Your task to perform on an android device: install app "Google Chat" Image 0: 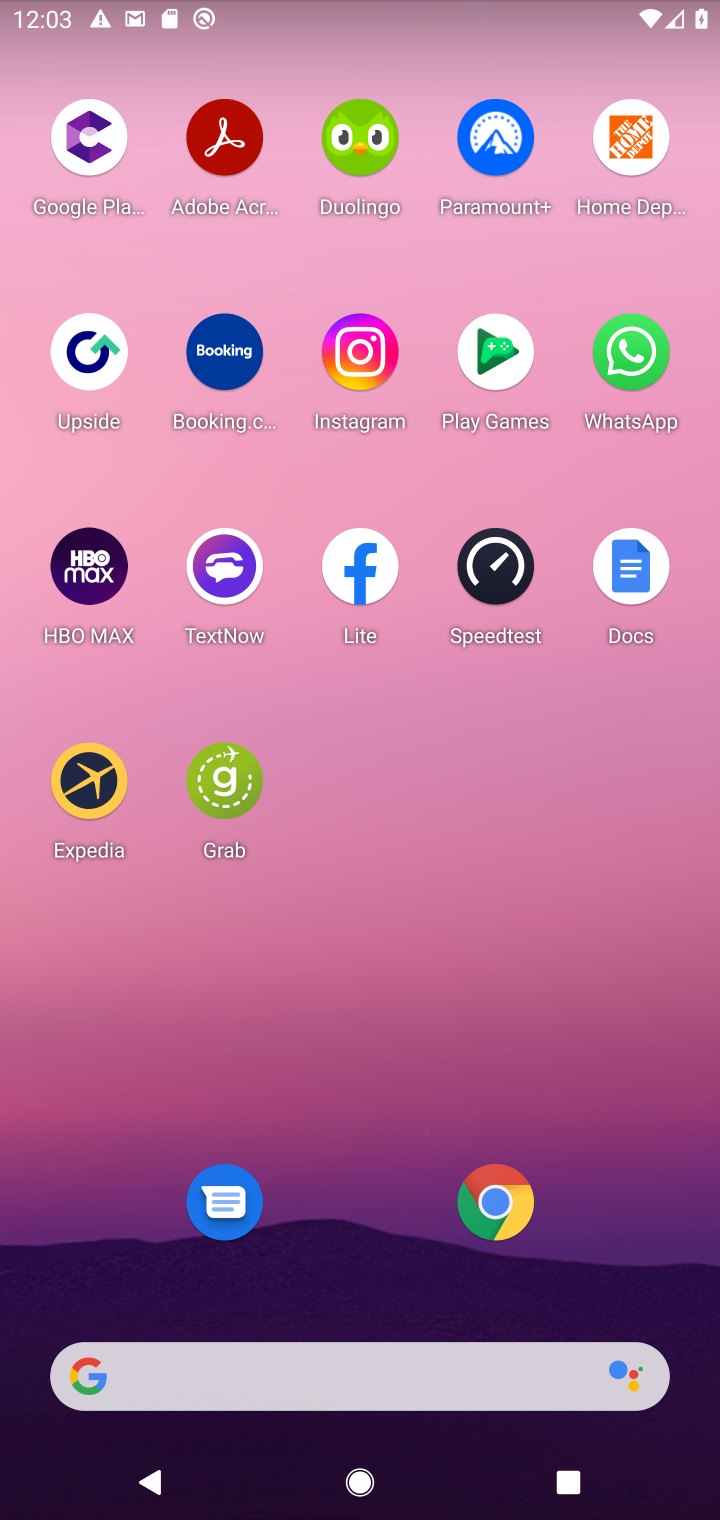
Step 0: drag from (377, 961) to (372, 113)
Your task to perform on an android device: install app "Google Chat" Image 1: 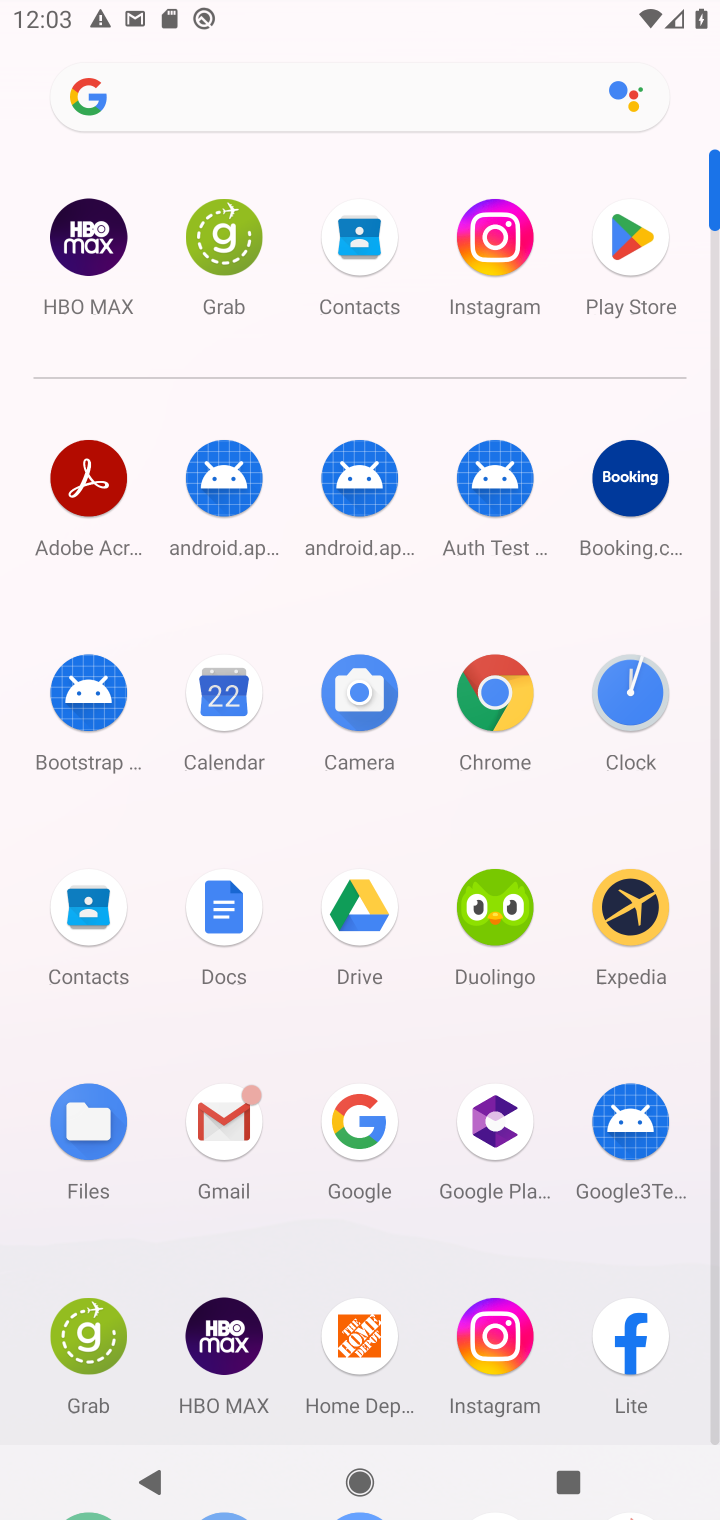
Step 1: click (625, 234)
Your task to perform on an android device: install app "Google Chat" Image 2: 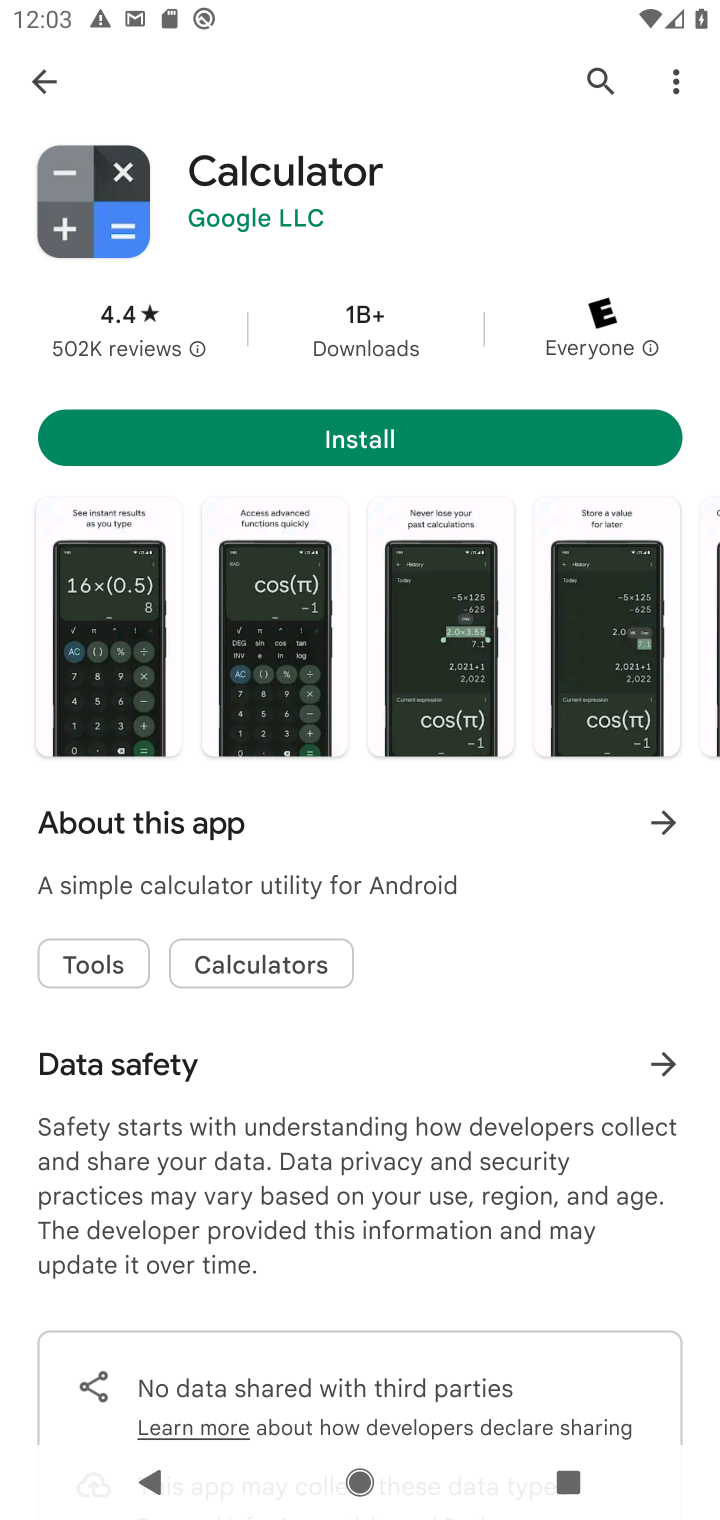
Step 2: click (591, 62)
Your task to perform on an android device: install app "Google Chat" Image 3: 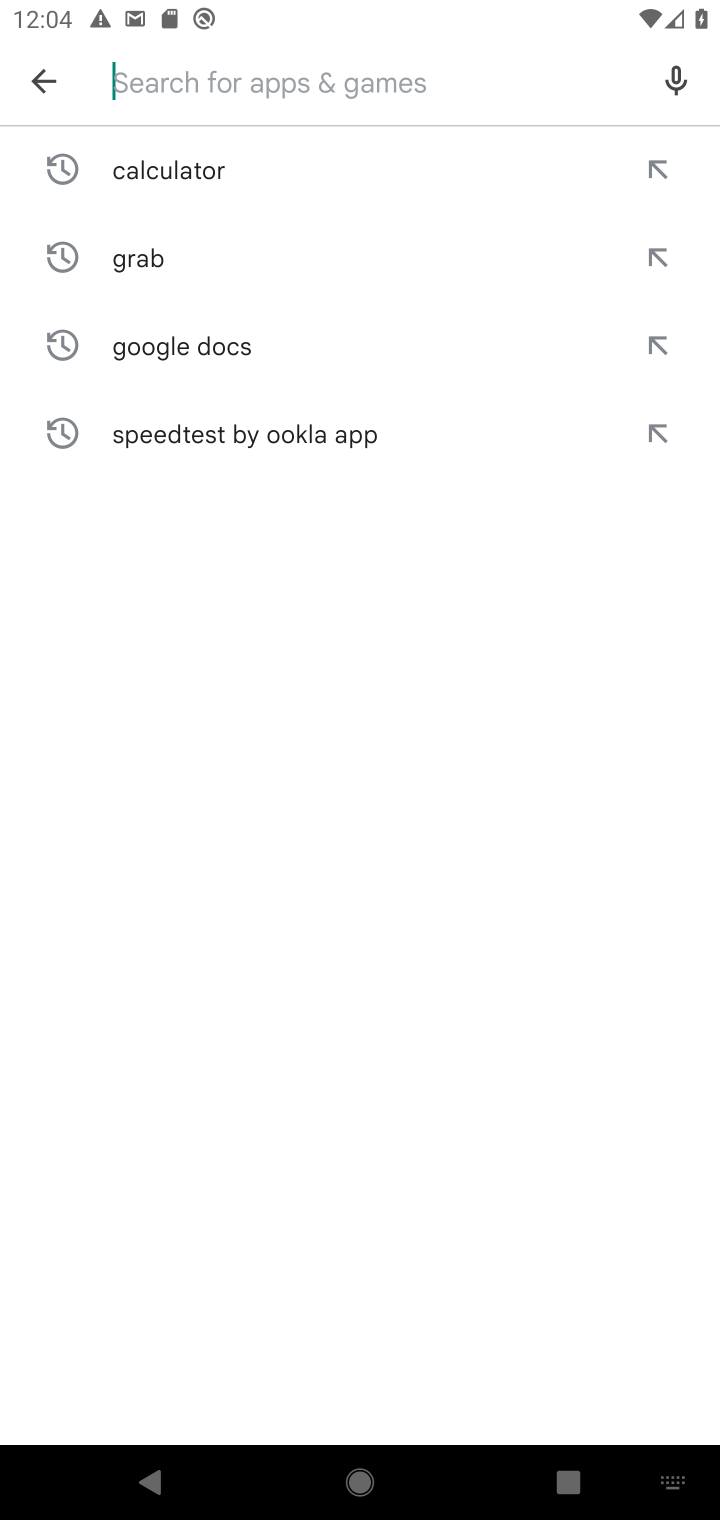
Step 3: type "Google Chat"
Your task to perform on an android device: install app "Google Chat" Image 4: 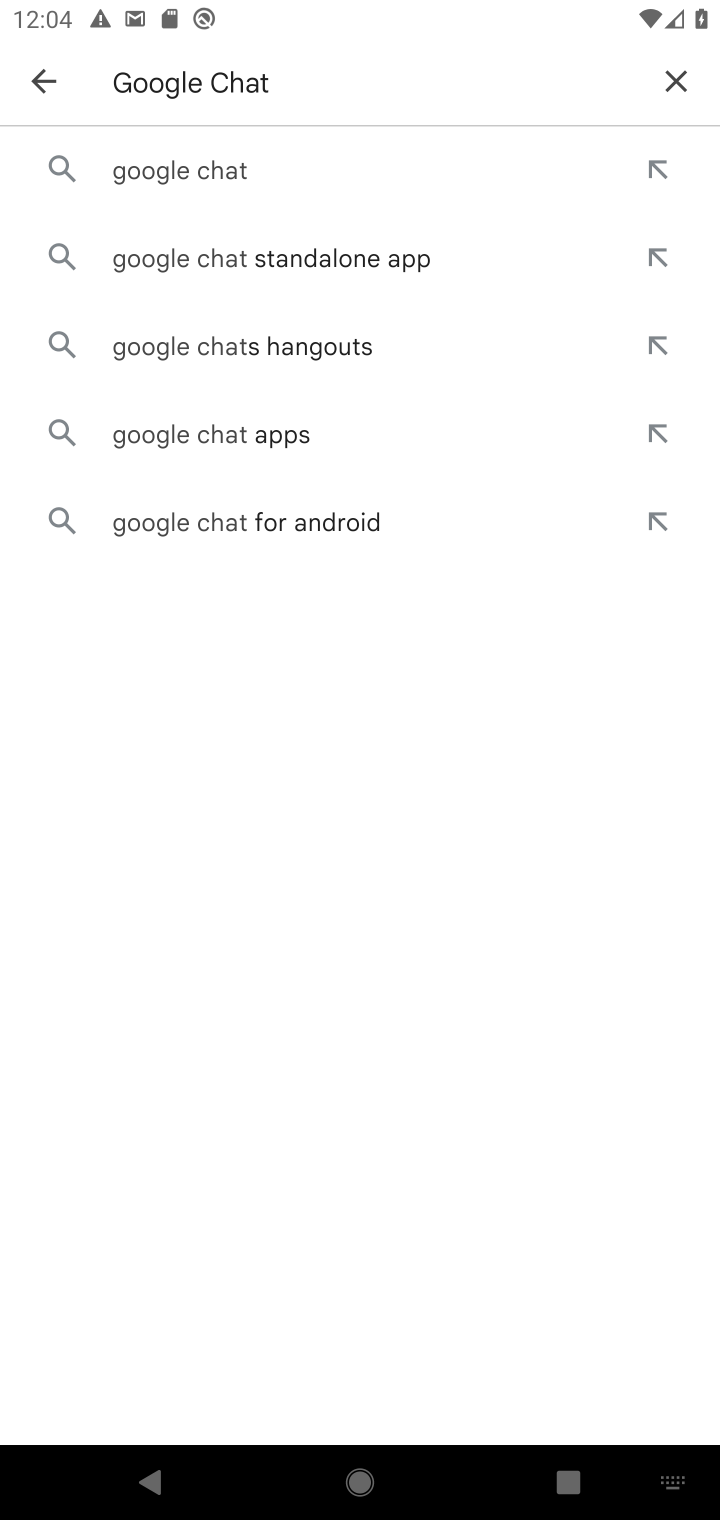
Step 4: click (206, 168)
Your task to perform on an android device: install app "Google Chat" Image 5: 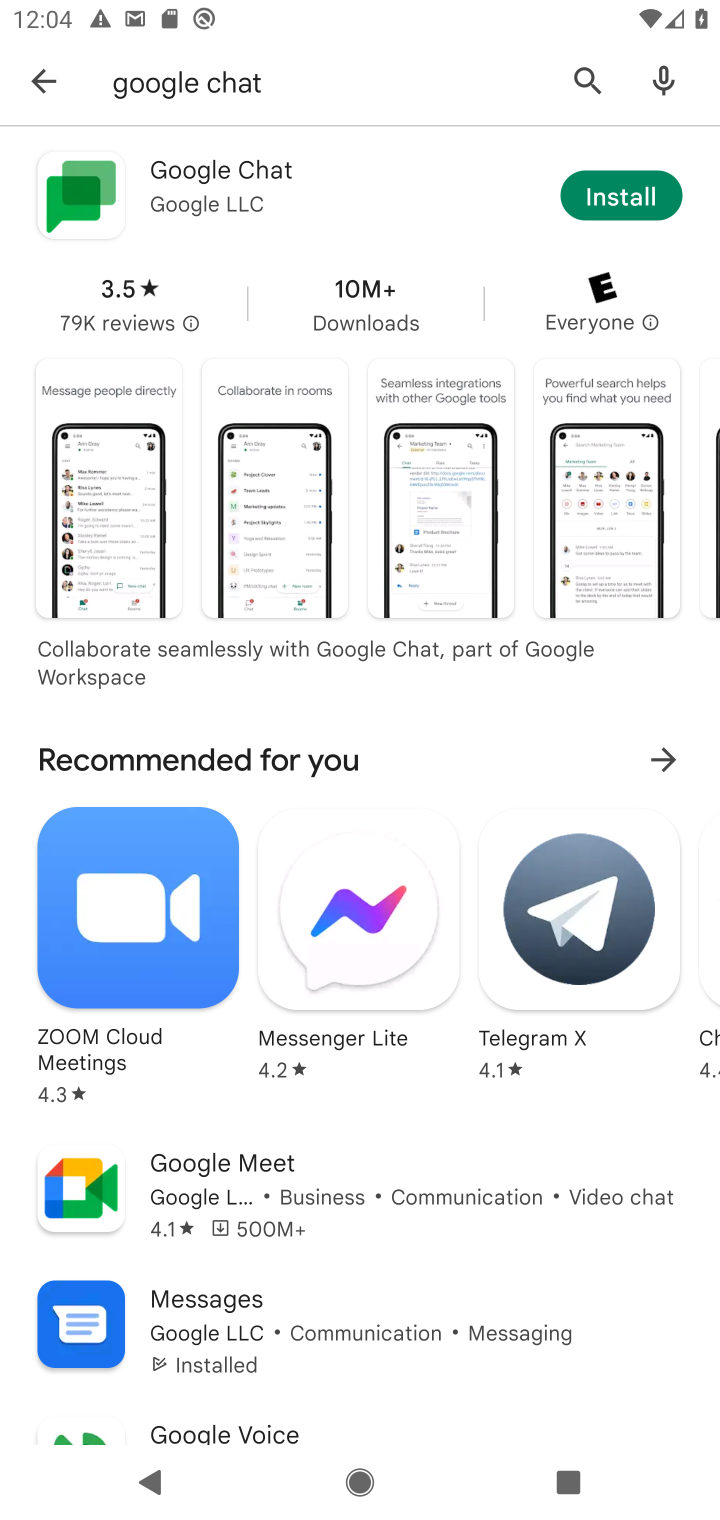
Step 5: click (622, 189)
Your task to perform on an android device: install app "Google Chat" Image 6: 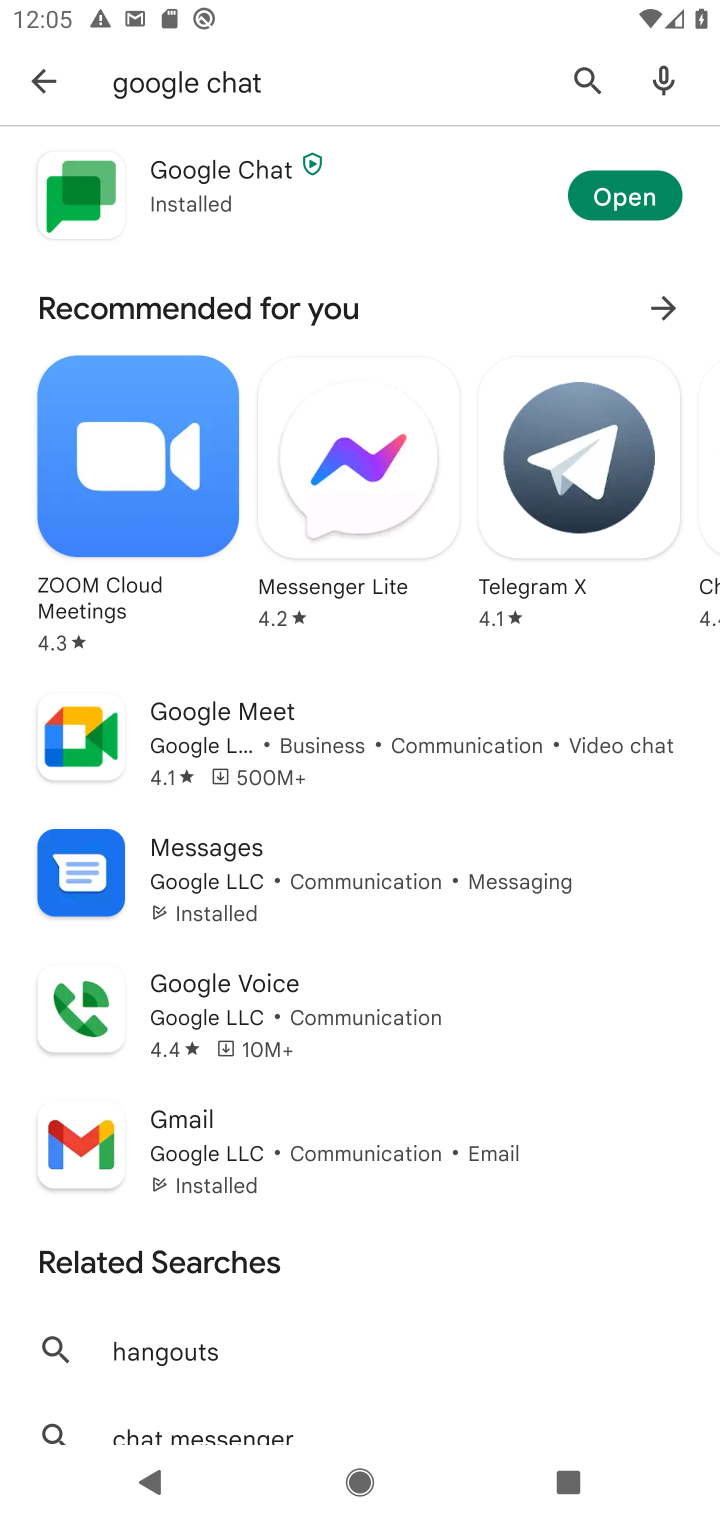
Step 6: task complete